Your task to perform on an android device: Open Yahoo.com Image 0: 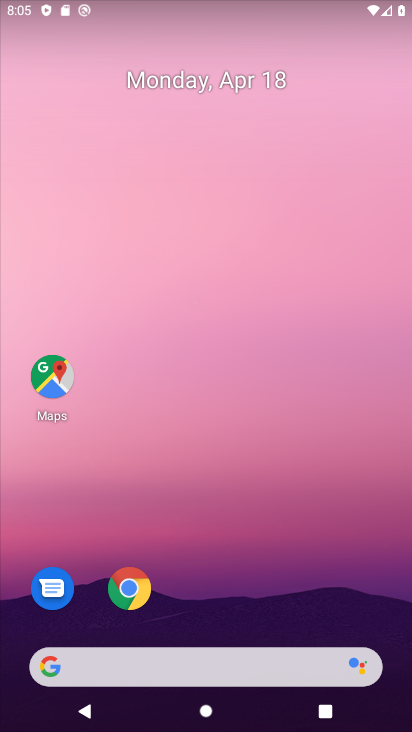
Step 0: click (127, 590)
Your task to perform on an android device: Open Yahoo.com Image 1: 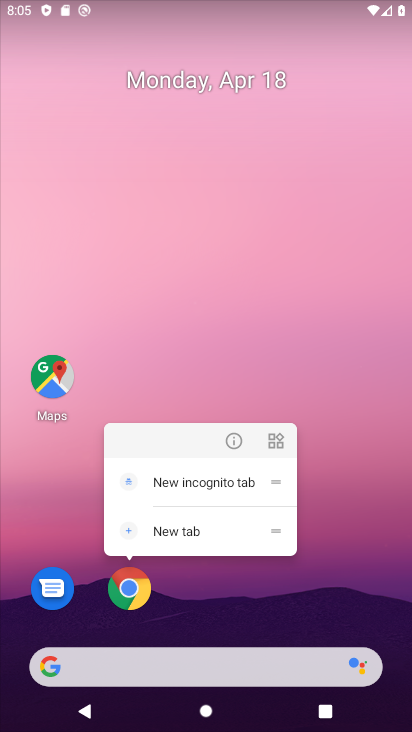
Step 1: click (127, 590)
Your task to perform on an android device: Open Yahoo.com Image 2: 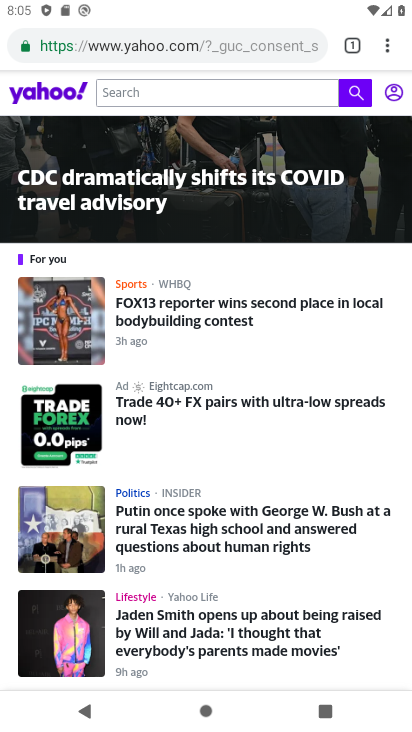
Step 2: task complete